Your task to perform on an android device: Search for sushi restaurants on Maps Image 0: 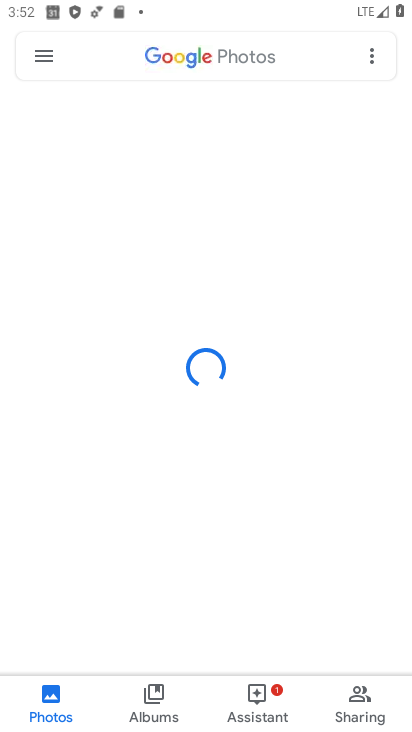
Step 0: press home button
Your task to perform on an android device: Search for sushi restaurants on Maps Image 1: 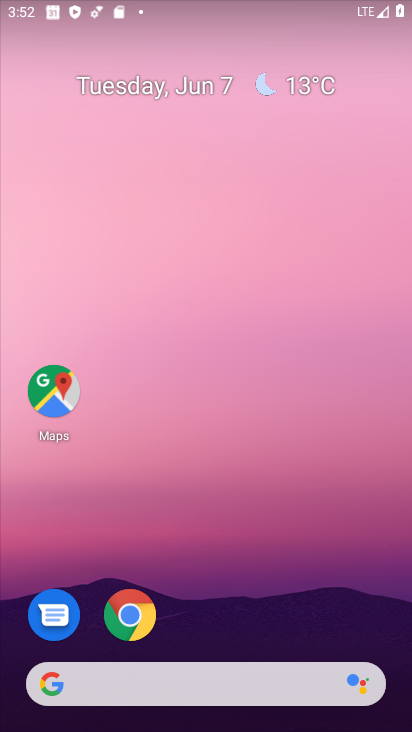
Step 1: drag from (166, 727) to (172, 63)
Your task to perform on an android device: Search for sushi restaurants on Maps Image 2: 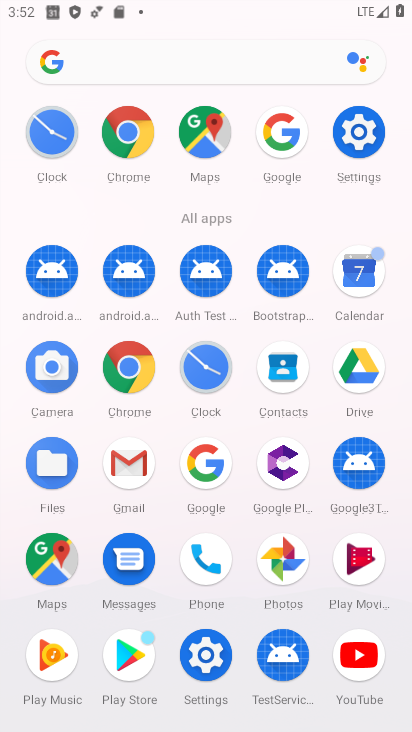
Step 2: click (53, 559)
Your task to perform on an android device: Search for sushi restaurants on Maps Image 3: 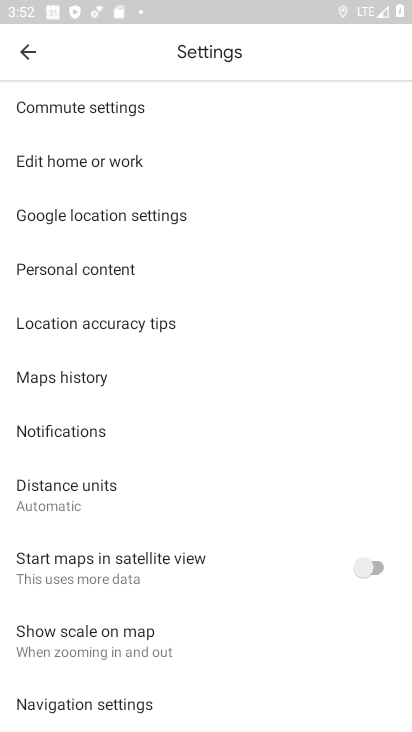
Step 3: click (29, 50)
Your task to perform on an android device: Search for sushi restaurants on Maps Image 4: 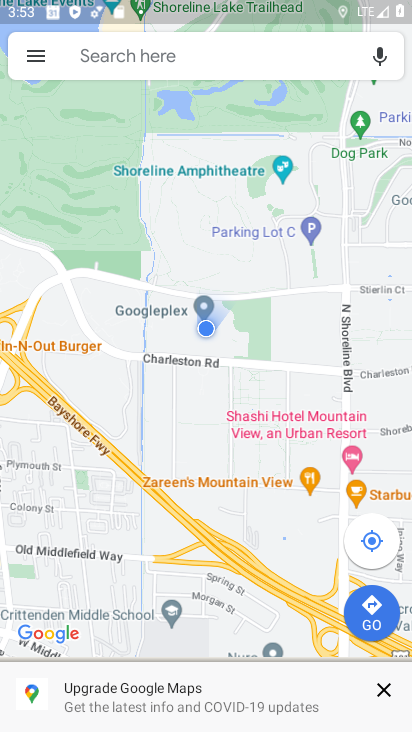
Step 4: click (179, 58)
Your task to perform on an android device: Search for sushi restaurants on Maps Image 5: 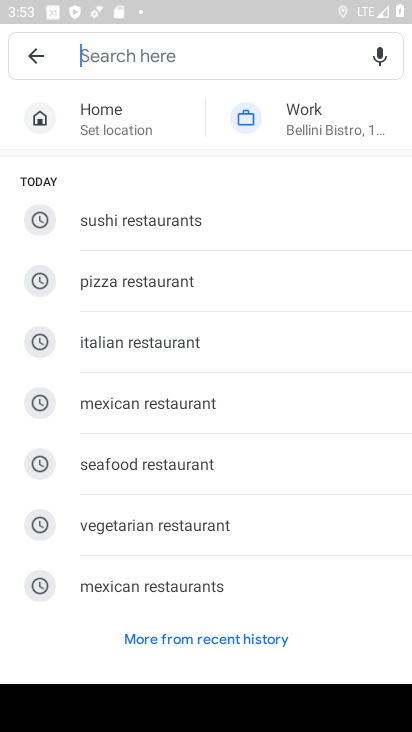
Step 5: type "sushi restaurants"
Your task to perform on an android device: Search for sushi restaurants on Maps Image 6: 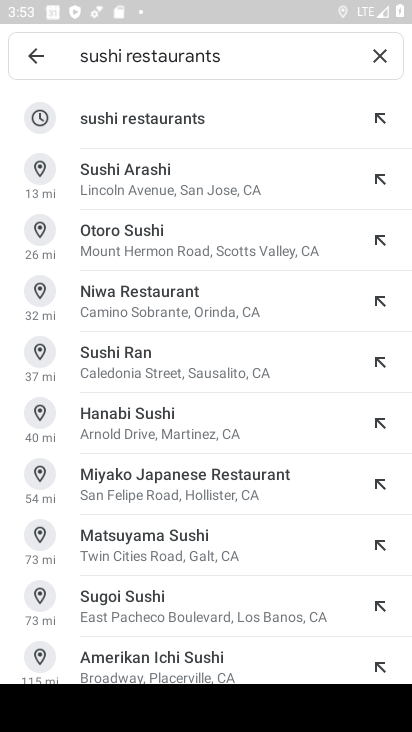
Step 6: click (187, 123)
Your task to perform on an android device: Search for sushi restaurants on Maps Image 7: 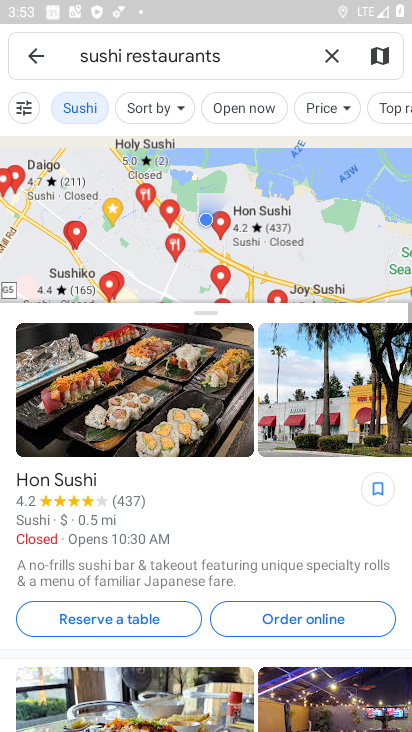
Step 7: task complete